Your task to perform on an android device: Go to Maps Image 0: 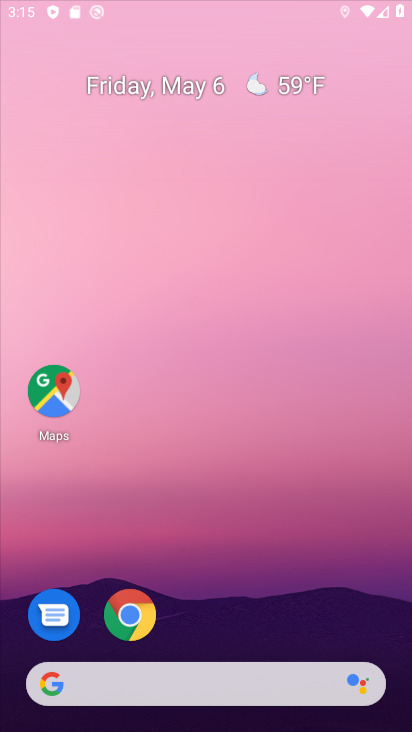
Step 0: drag from (329, 372) to (318, 20)
Your task to perform on an android device: Go to Maps Image 1: 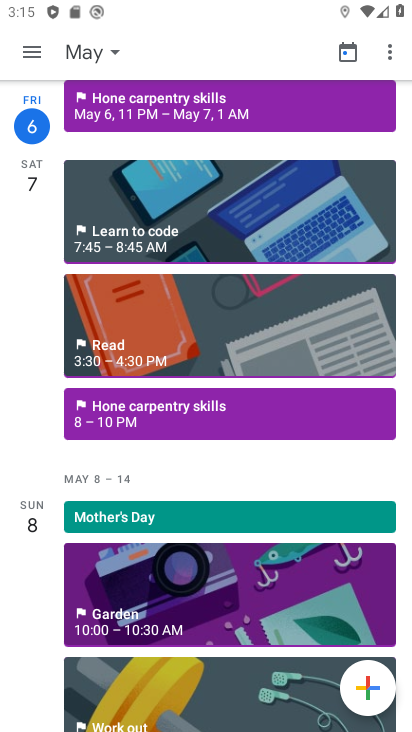
Step 1: press home button
Your task to perform on an android device: Go to Maps Image 2: 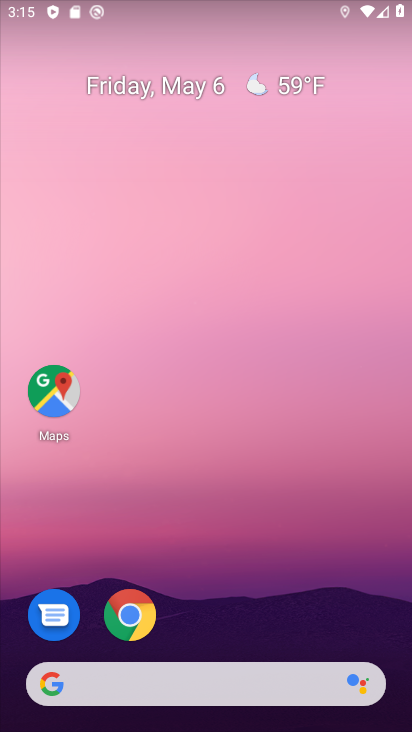
Step 2: click (50, 393)
Your task to perform on an android device: Go to Maps Image 3: 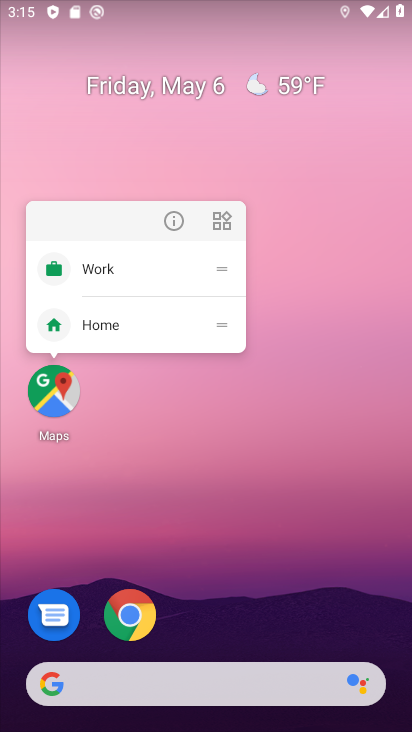
Step 3: click (50, 393)
Your task to perform on an android device: Go to Maps Image 4: 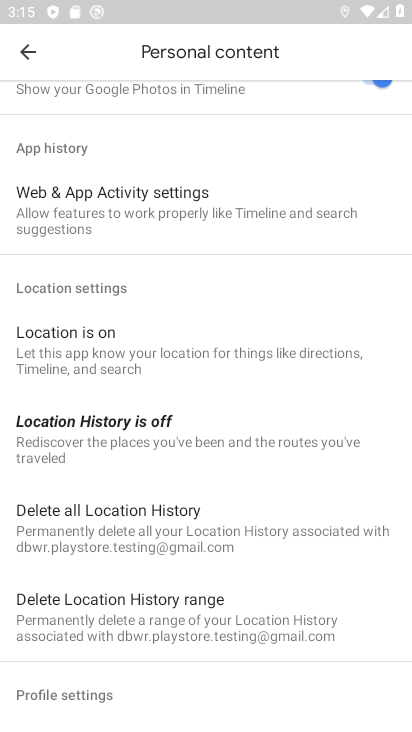
Step 4: click (34, 53)
Your task to perform on an android device: Go to Maps Image 5: 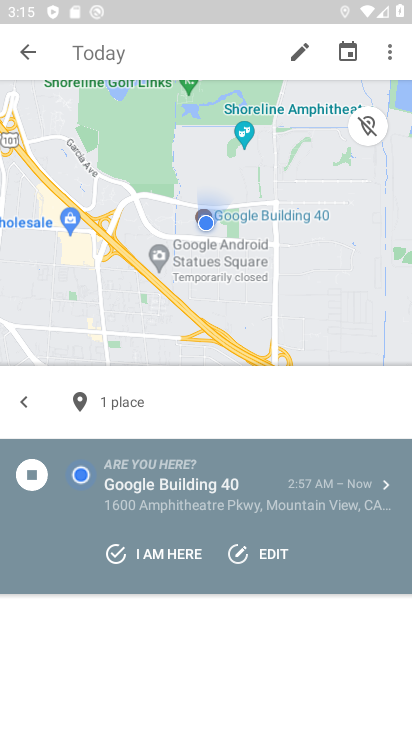
Step 5: click (34, 53)
Your task to perform on an android device: Go to Maps Image 6: 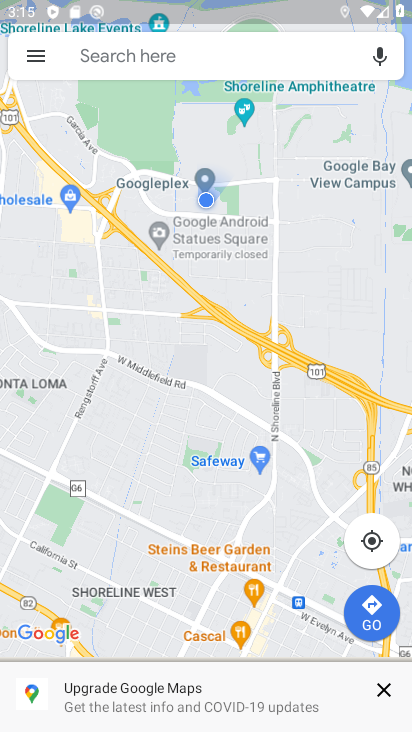
Step 6: task complete